Your task to perform on an android device: change notification settings in the gmail app Image 0: 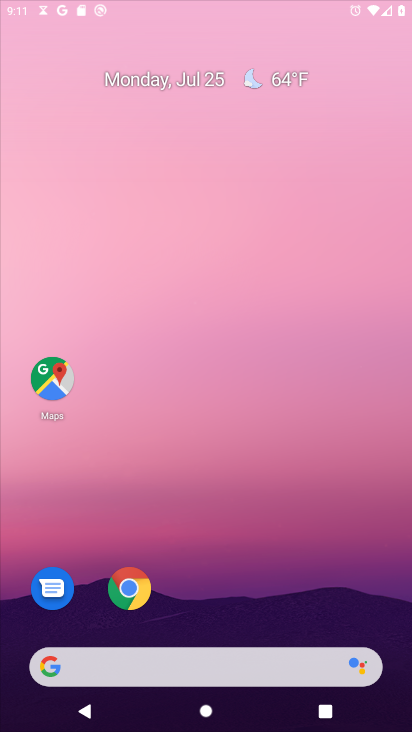
Step 0: click (176, 139)
Your task to perform on an android device: change notification settings in the gmail app Image 1: 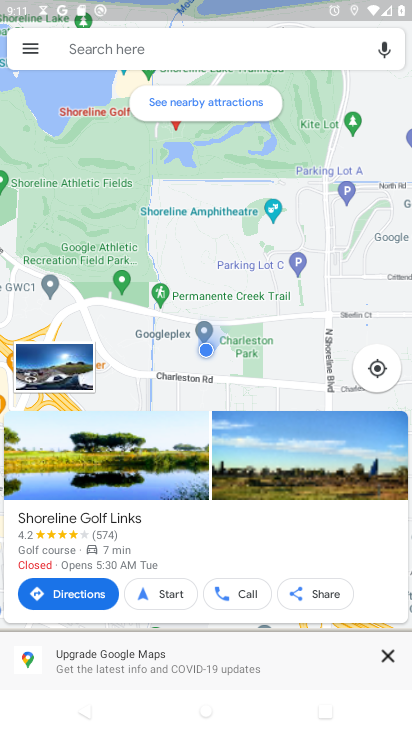
Step 1: press home button
Your task to perform on an android device: change notification settings in the gmail app Image 2: 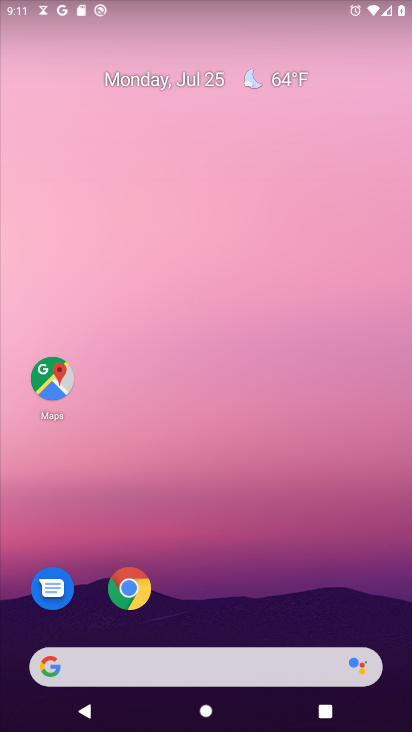
Step 2: drag from (240, 664) to (269, 30)
Your task to perform on an android device: change notification settings in the gmail app Image 3: 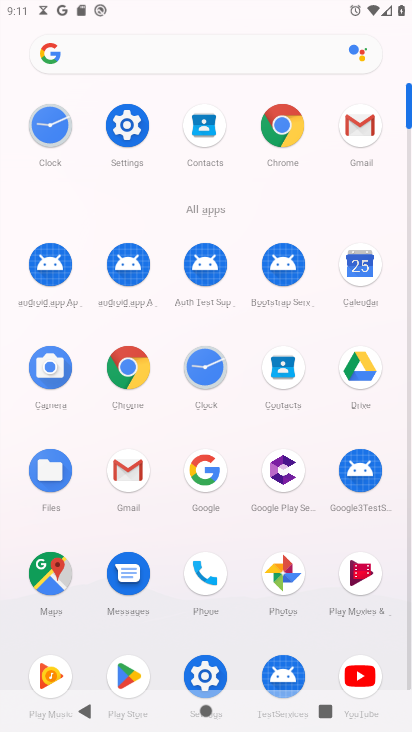
Step 3: click (118, 489)
Your task to perform on an android device: change notification settings in the gmail app Image 4: 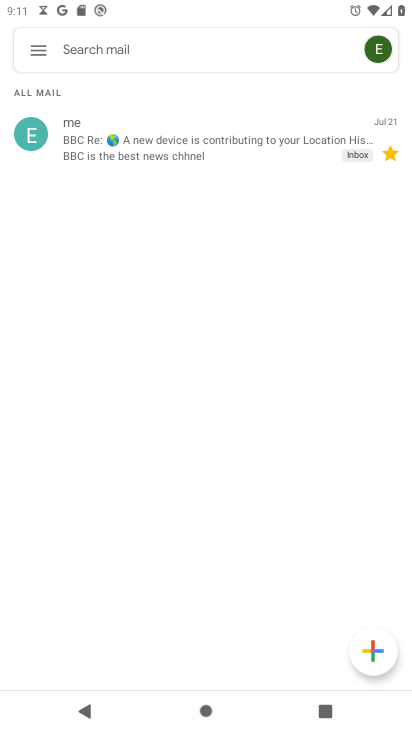
Step 4: click (39, 54)
Your task to perform on an android device: change notification settings in the gmail app Image 5: 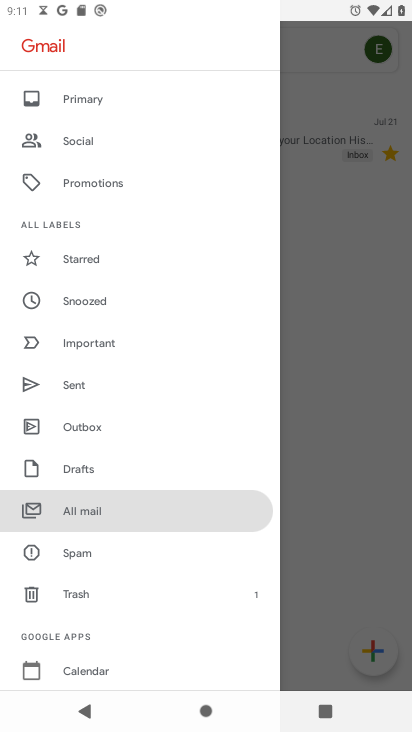
Step 5: drag from (139, 563) to (135, 265)
Your task to perform on an android device: change notification settings in the gmail app Image 6: 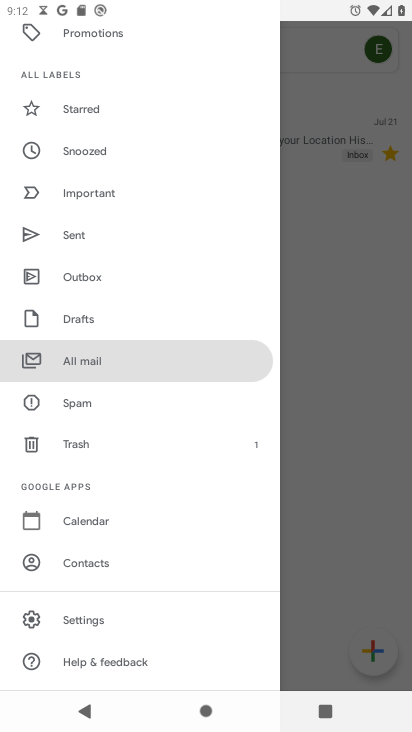
Step 6: click (90, 619)
Your task to perform on an android device: change notification settings in the gmail app Image 7: 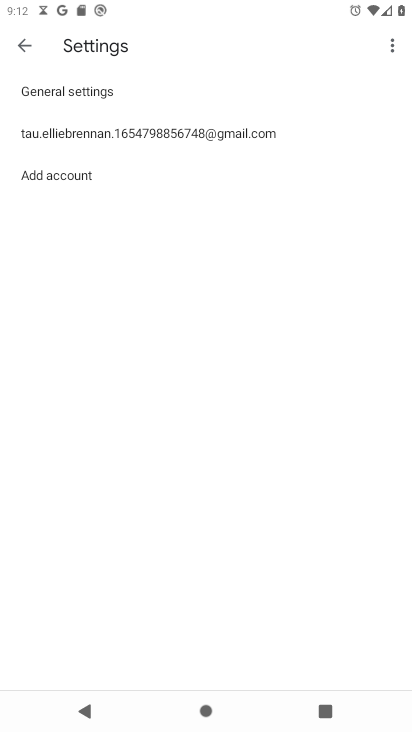
Step 7: click (61, 130)
Your task to perform on an android device: change notification settings in the gmail app Image 8: 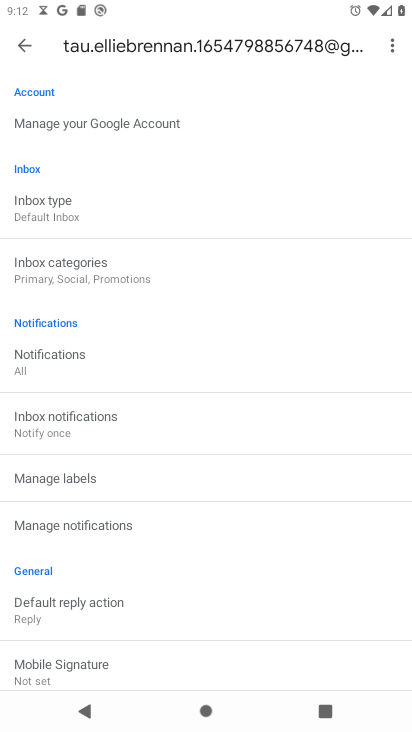
Step 8: click (100, 523)
Your task to perform on an android device: change notification settings in the gmail app Image 9: 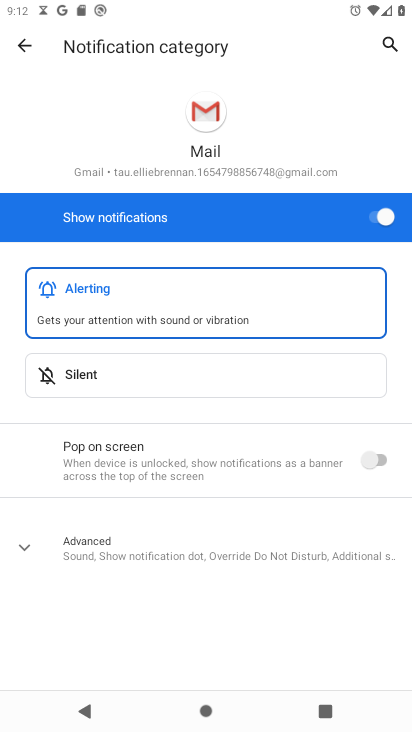
Step 9: click (232, 369)
Your task to perform on an android device: change notification settings in the gmail app Image 10: 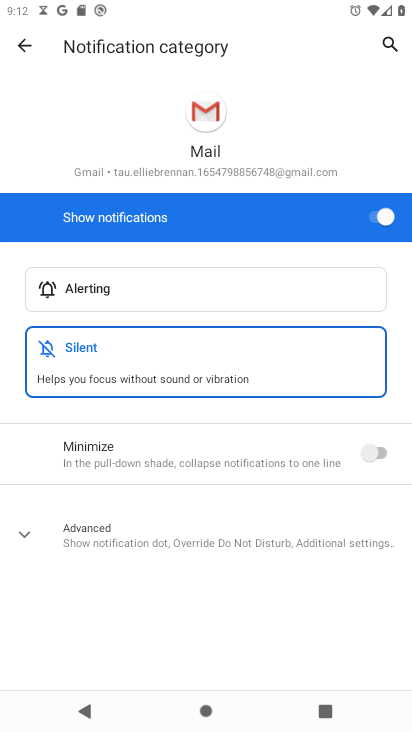
Step 10: task complete